Your task to perform on an android device: Go to wifi settings Image 0: 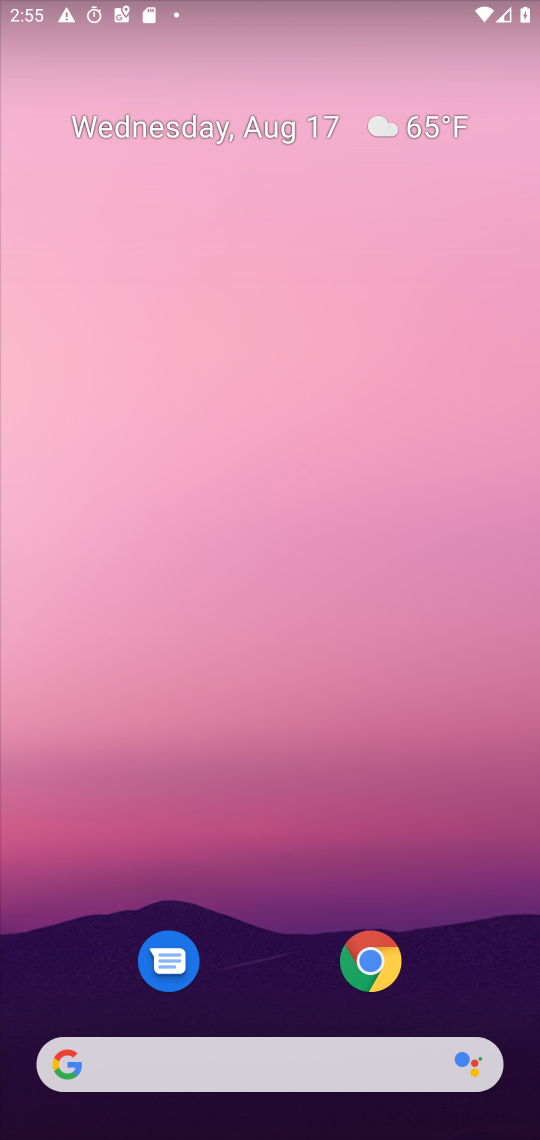
Step 0: drag from (363, 880) to (383, 72)
Your task to perform on an android device: Go to wifi settings Image 1: 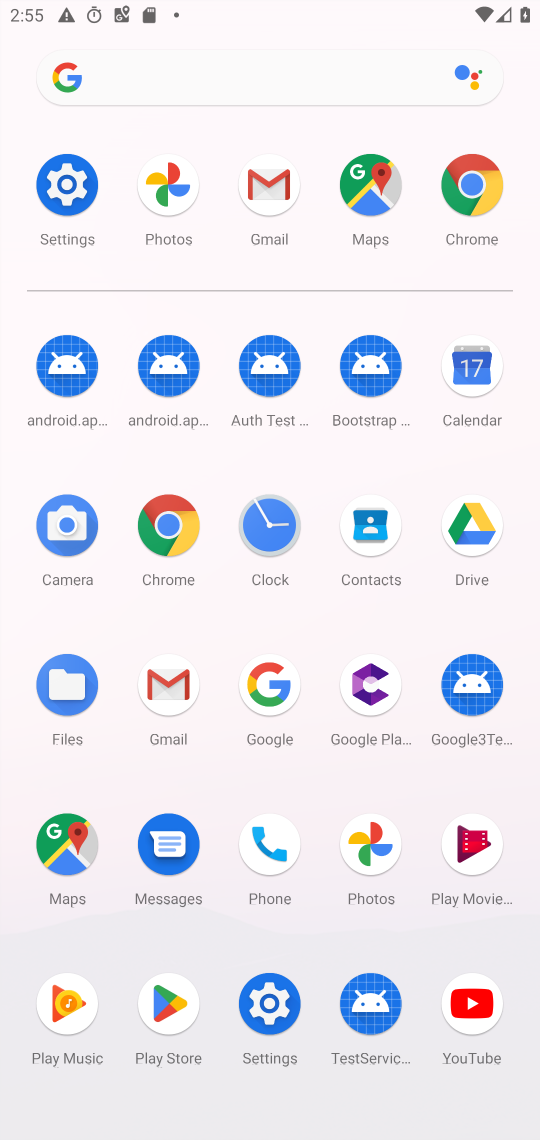
Step 1: click (86, 212)
Your task to perform on an android device: Go to wifi settings Image 2: 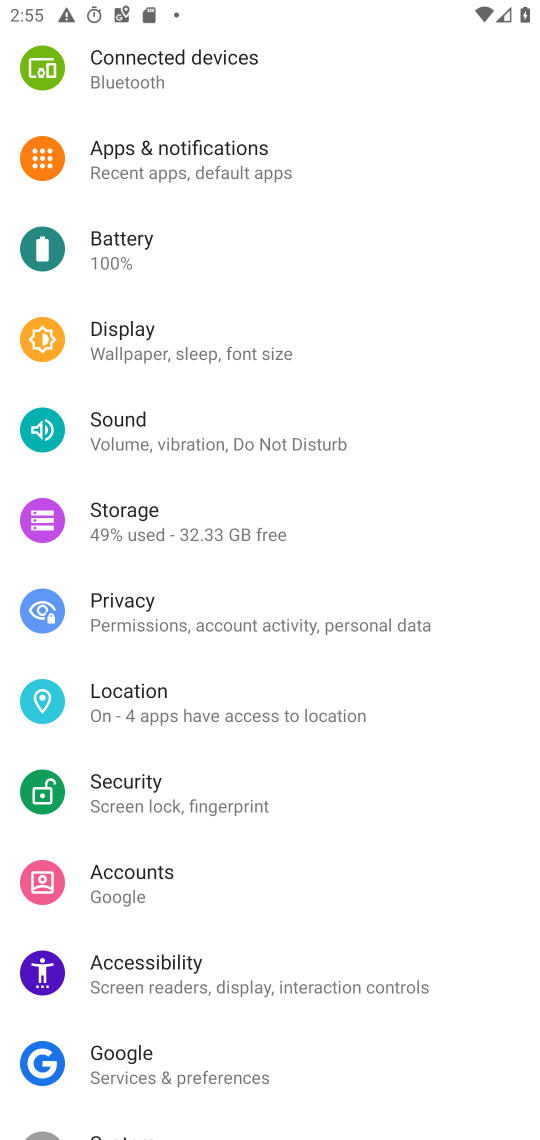
Step 2: drag from (236, 458) to (286, 904)
Your task to perform on an android device: Go to wifi settings Image 3: 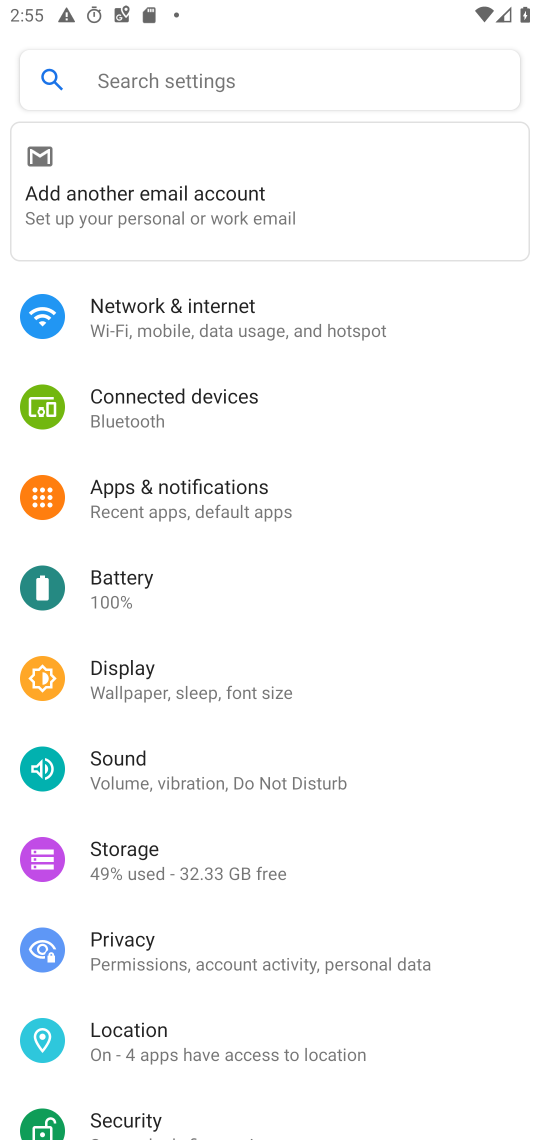
Step 3: click (270, 338)
Your task to perform on an android device: Go to wifi settings Image 4: 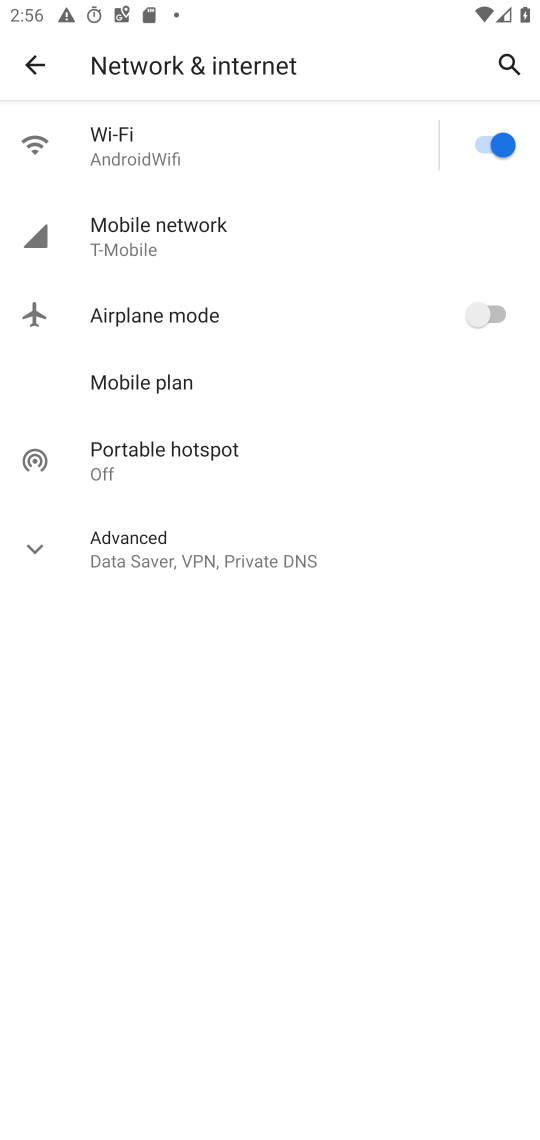
Step 4: click (231, 157)
Your task to perform on an android device: Go to wifi settings Image 5: 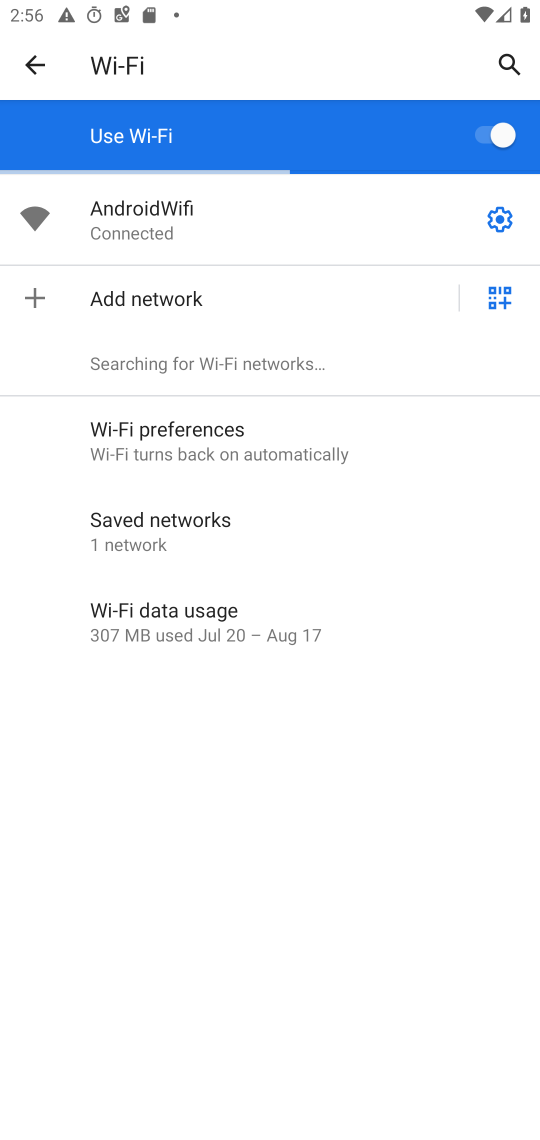
Step 5: task complete